Your task to perform on an android device: Search for vegetarian restaurants on Maps Image 0: 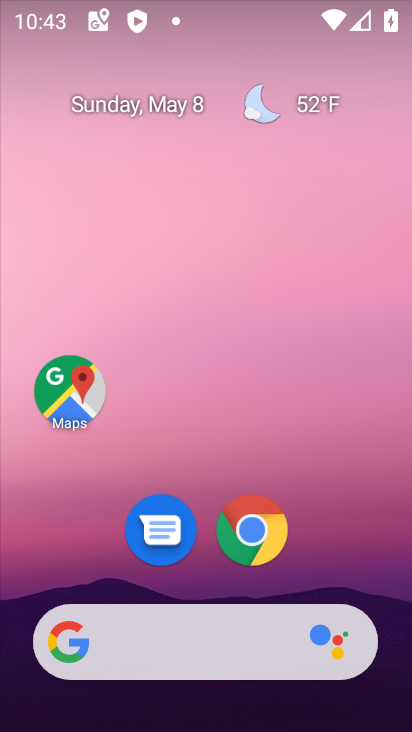
Step 0: drag from (368, 590) to (325, 171)
Your task to perform on an android device: Search for vegetarian restaurants on Maps Image 1: 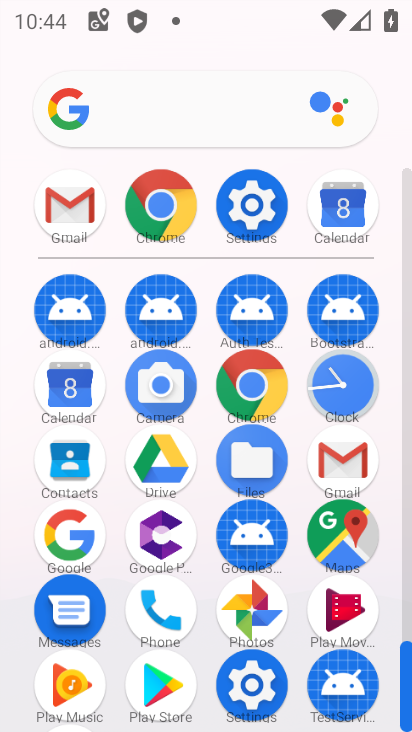
Step 1: click (324, 537)
Your task to perform on an android device: Search for vegetarian restaurants on Maps Image 2: 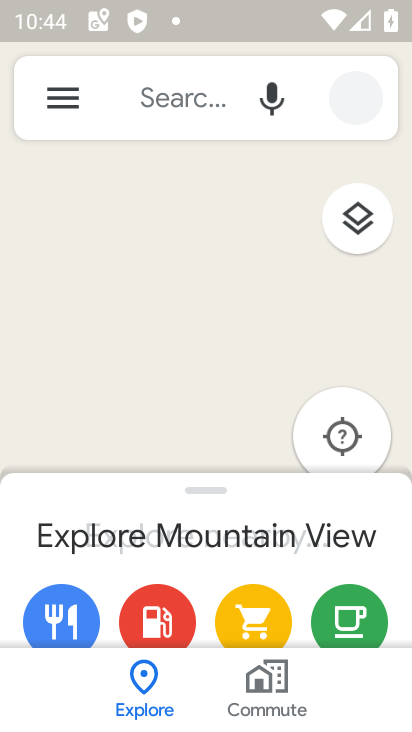
Step 2: click (165, 112)
Your task to perform on an android device: Search for vegetarian restaurants on Maps Image 3: 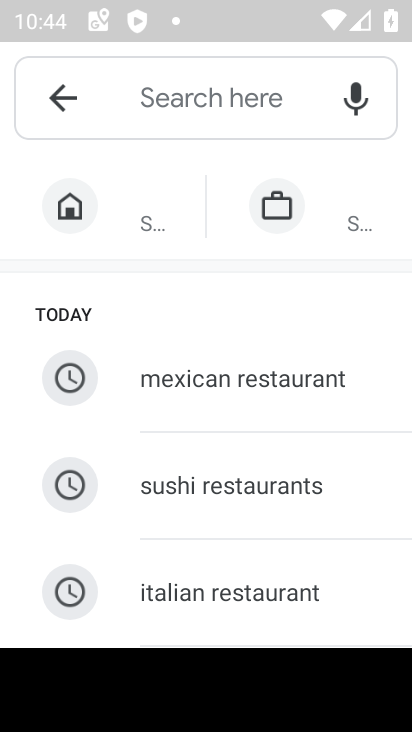
Step 3: type "vegetarian restaurants"
Your task to perform on an android device: Search for vegetarian restaurants on Maps Image 4: 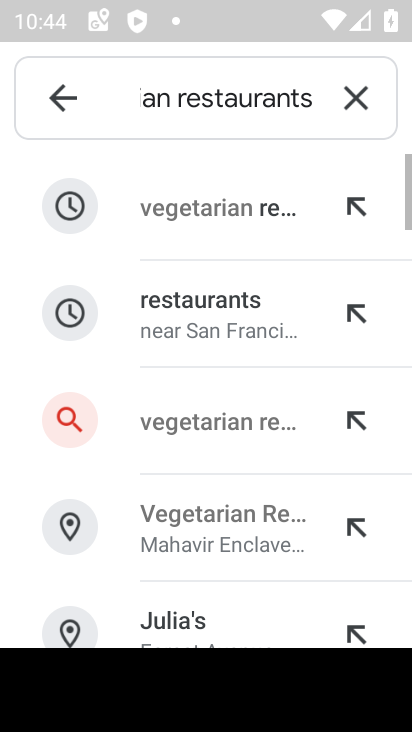
Step 4: click (184, 222)
Your task to perform on an android device: Search for vegetarian restaurants on Maps Image 5: 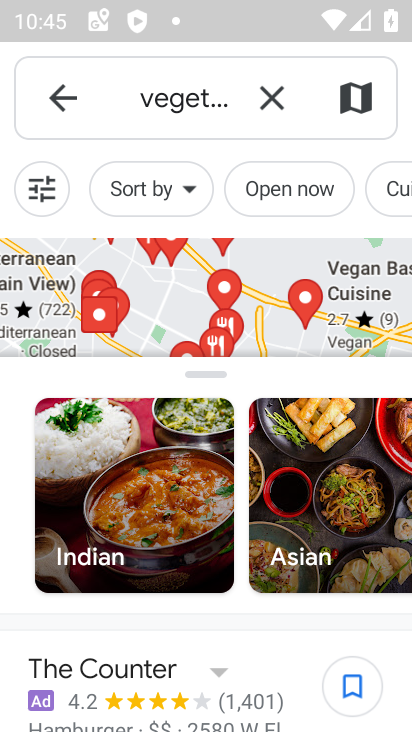
Step 5: task complete